Your task to perform on an android device: change text size in settings app Image 0: 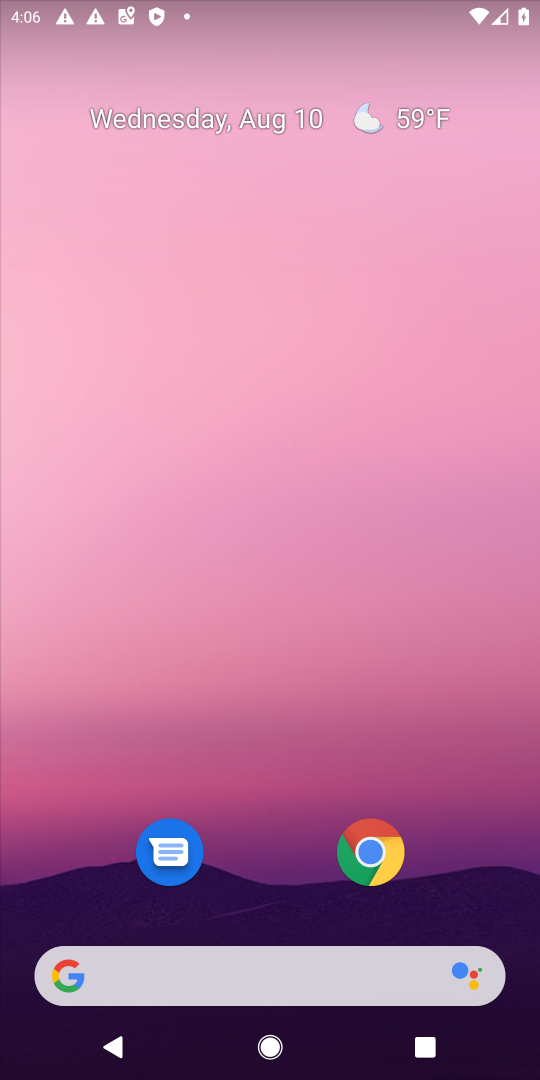
Step 0: drag from (242, 850) to (199, 355)
Your task to perform on an android device: change text size in settings app Image 1: 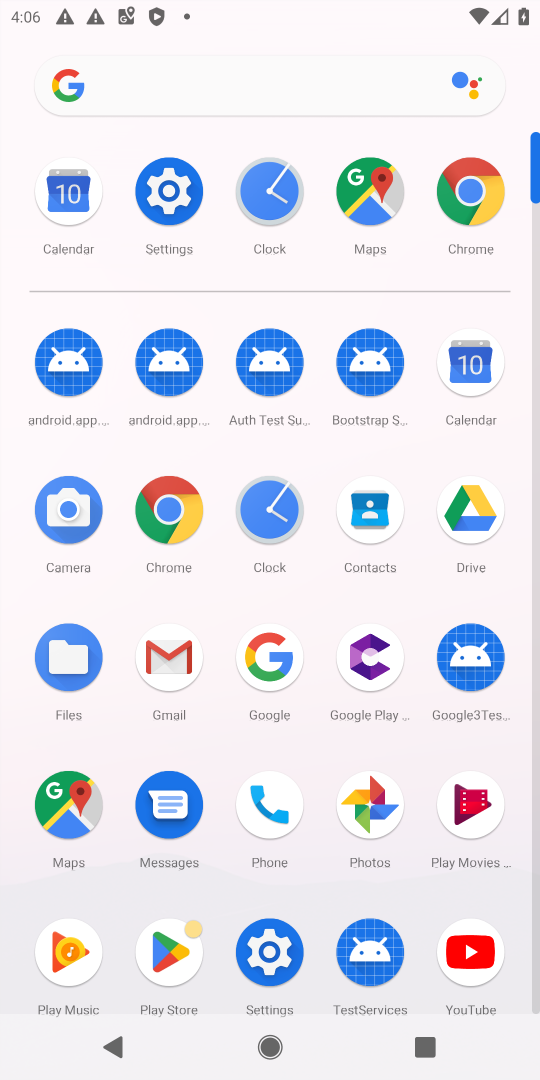
Step 1: click (283, 938)
Your task to perform on an android device: change text size in settings app Image 2: 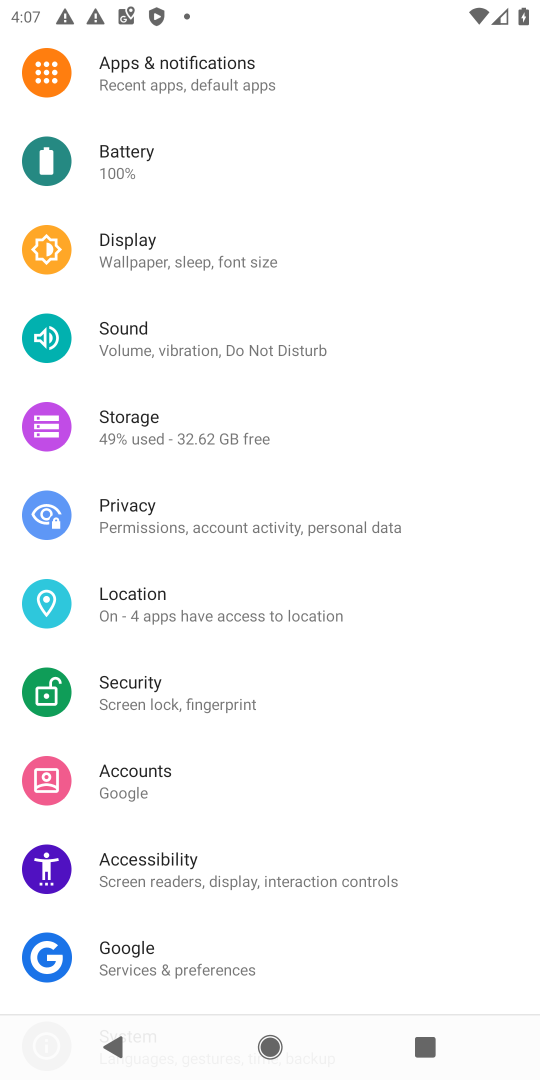
Step 2: click (196, 277)
Your task to perform on an android device: change text size in settings app Image 3: 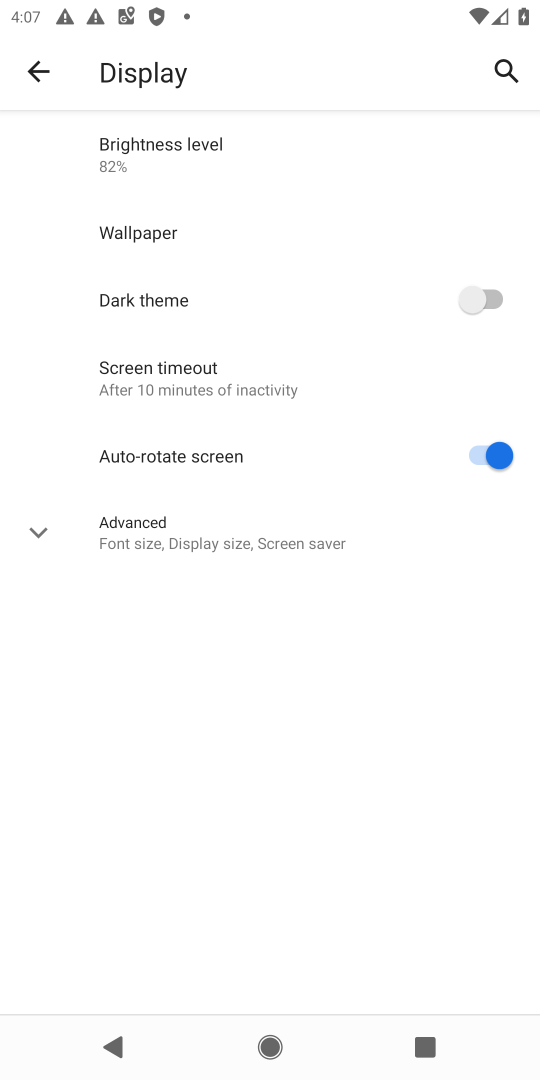
Step 3: click (158, 539)
Your task to perform on an android device: change text size in settings app Image 4: 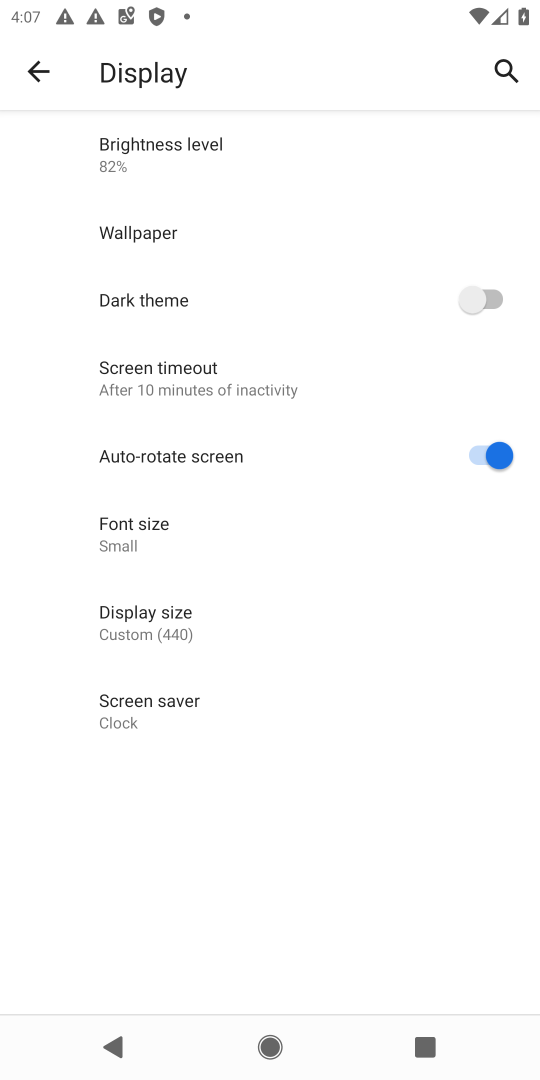
Step 4: click (114, 526)
Your task to perform on an android device: change text size in settings app Image 5: 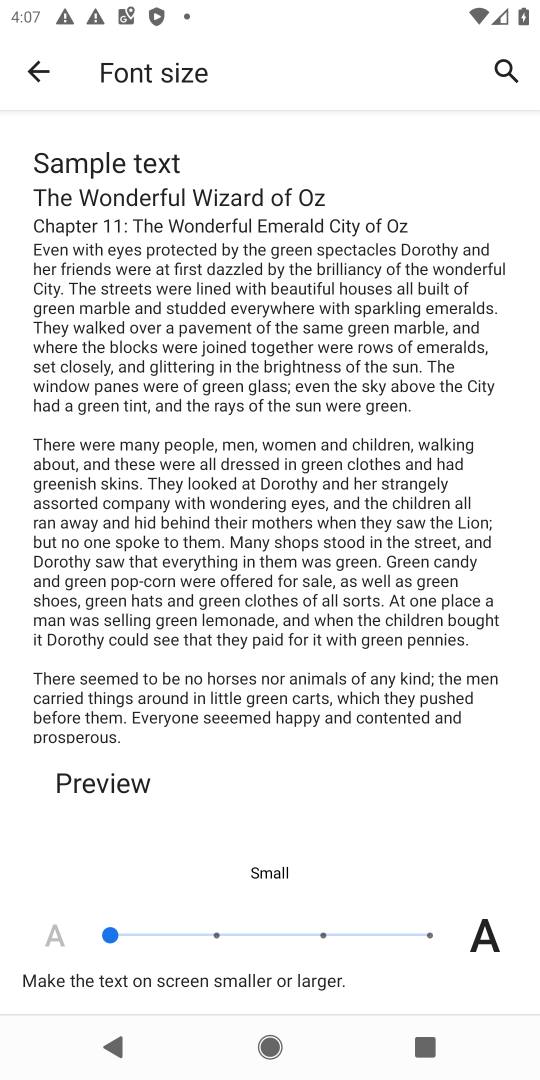
Step 5: click (222, 927)
Your task to perform on an android device: change text size in settings app Image 6: 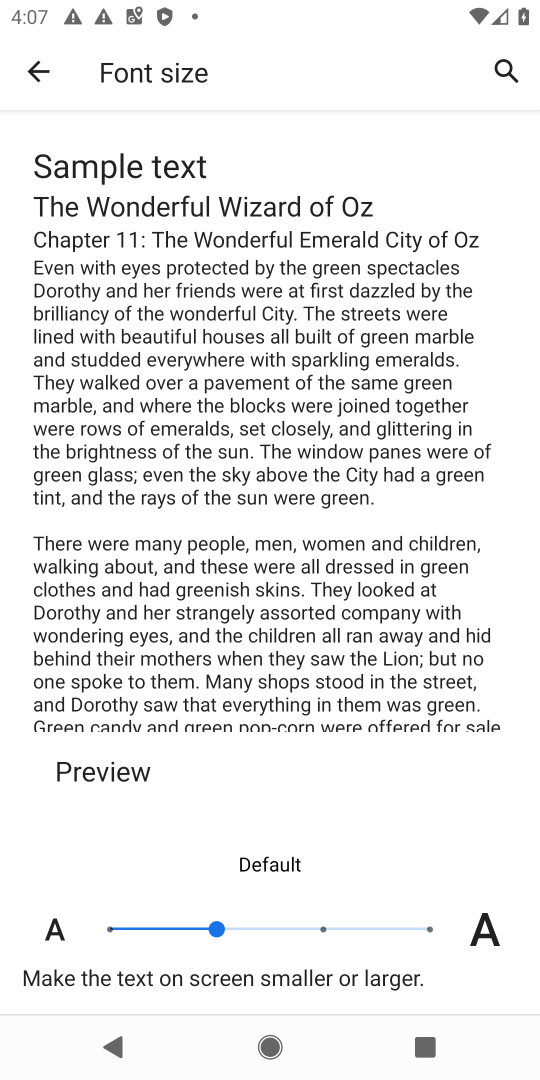
Step 6: task complete